Your task to perform on an android device: turn off notifications in google photos Image 0: 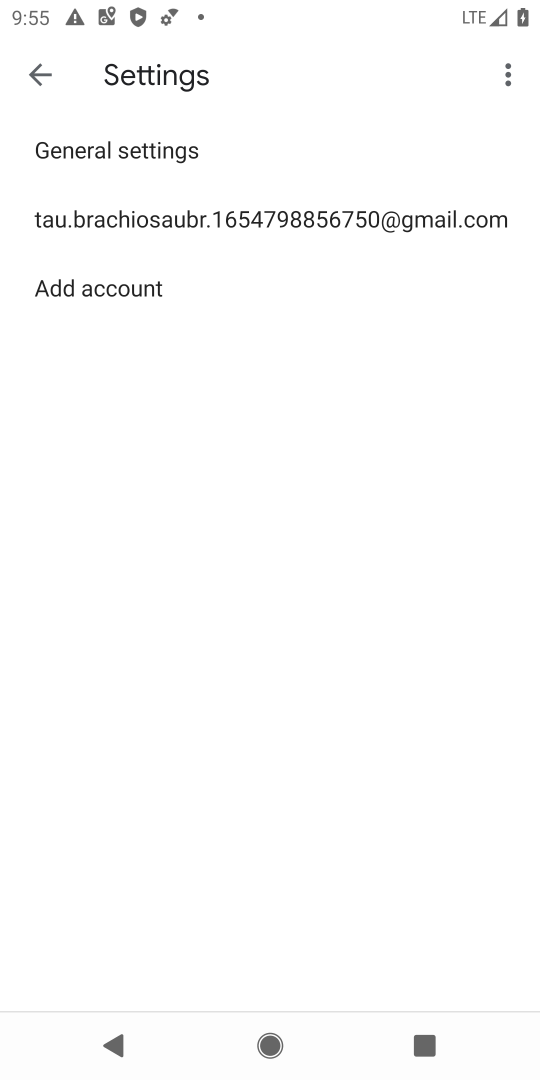
Step 0: press back button
Your task to perform on an android device: turn off notifications in google photos Image 1: 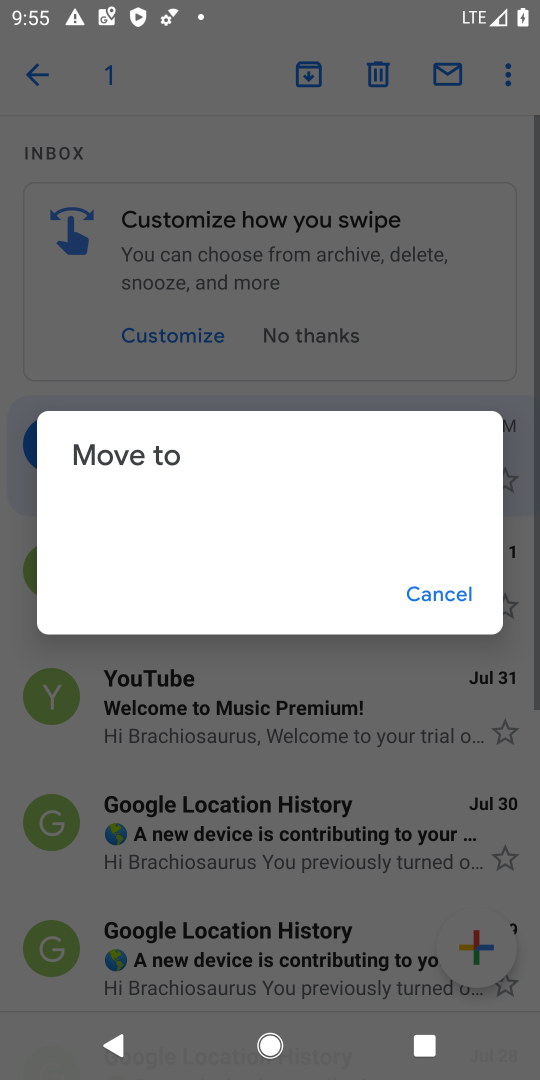
Step 1: press home button
Your task to perform on an android device: turn off notifications in google photos Image 2: 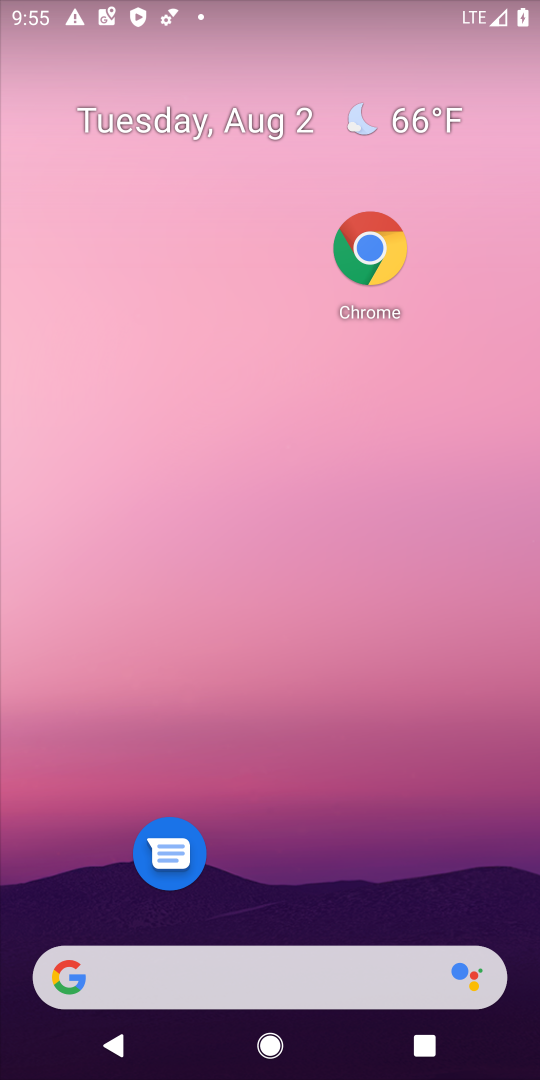
Step 2: drag from (265, 839) to (496, 34)
Your task to perform on an android device: turn off notifications in google photos Image 3: 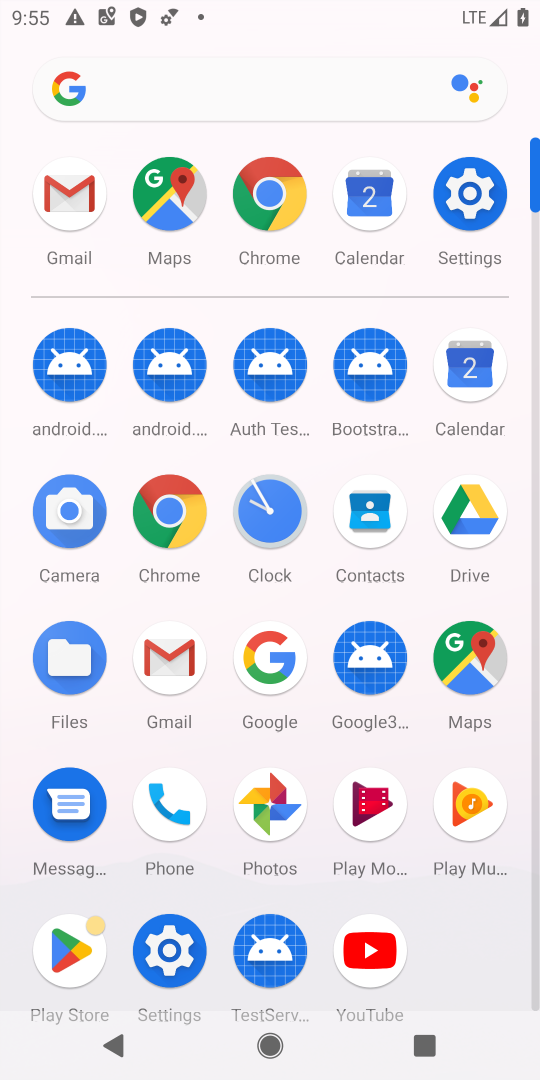
Step 3: click (251, 812)
Your task to perform on an android device: turn off notifications in google photos Image 4: 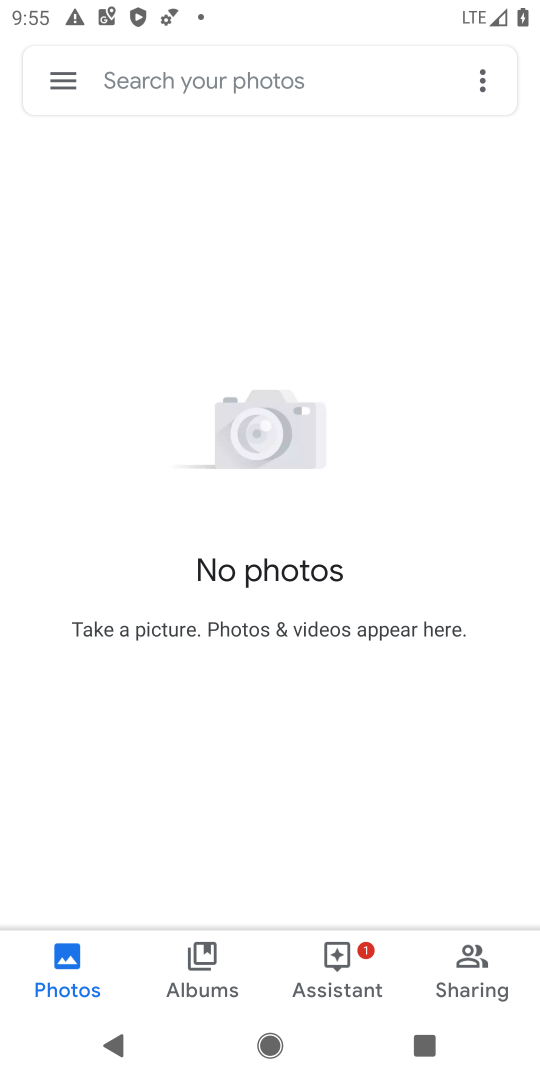
Step 4: drag from (58, 76) to (164, 423)
Your task to perform on an android device: turn off notifications in google photos Image 5: 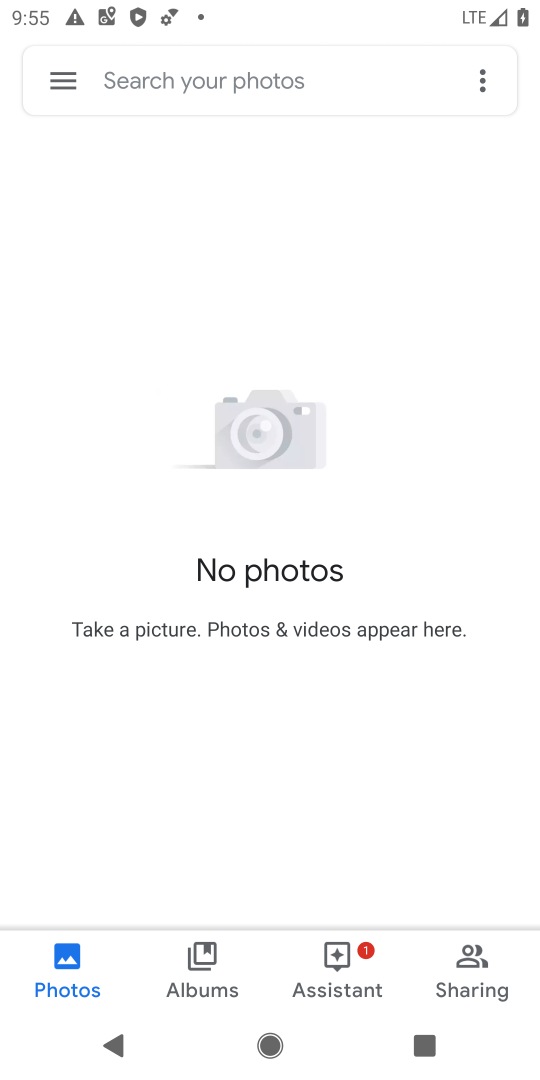
Step 5: click (77, 73)
Your task to perform on an android device: turn off notifications in google photos Image 6: 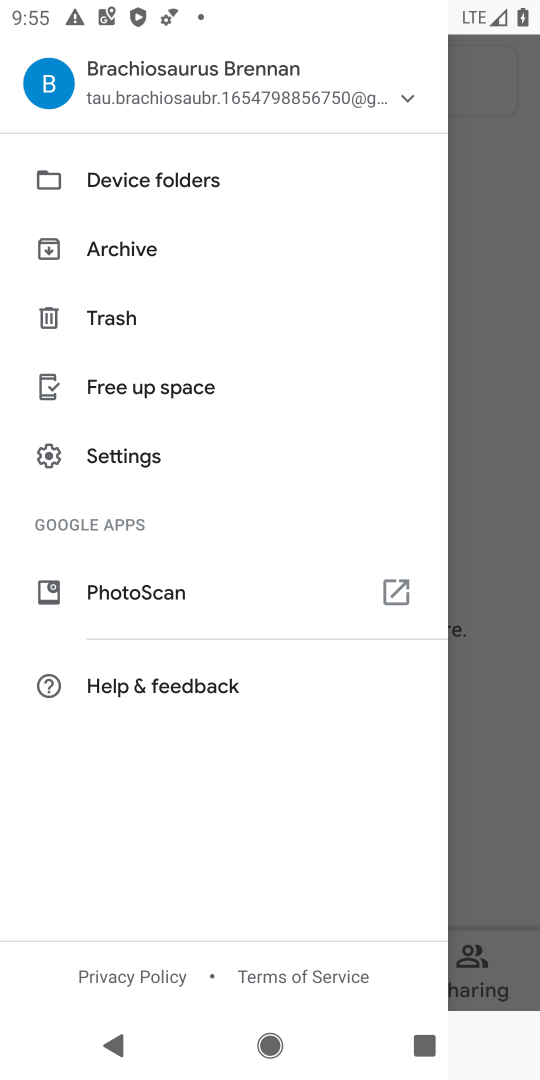
Step 6: click (113, 466)
Your task to perform on an android device: turn off notifications in google photos Image 7: 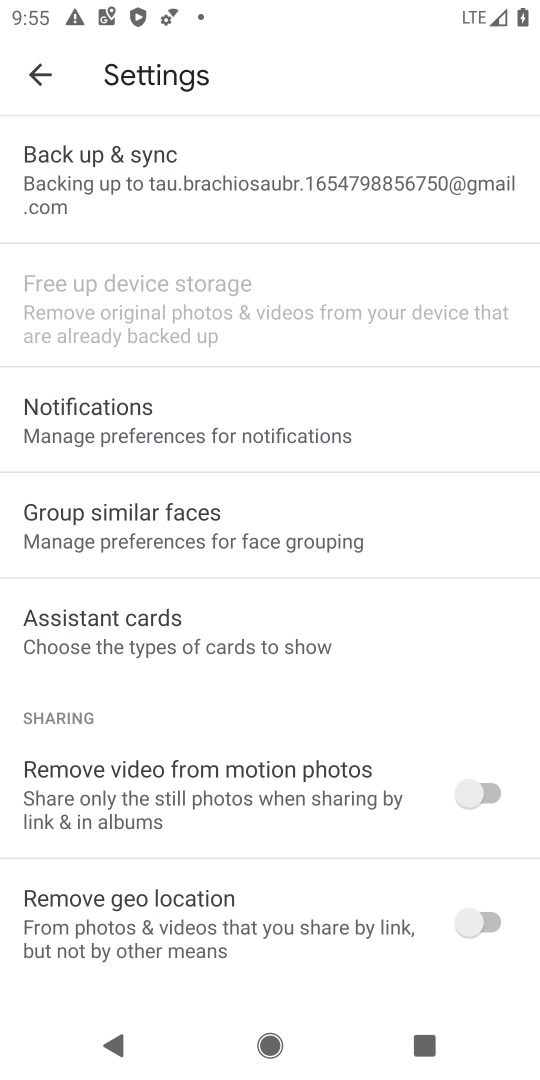
Step 7: click (131, 423)
Your task to perform on an android device: turn off notifications in google photos Image 8: 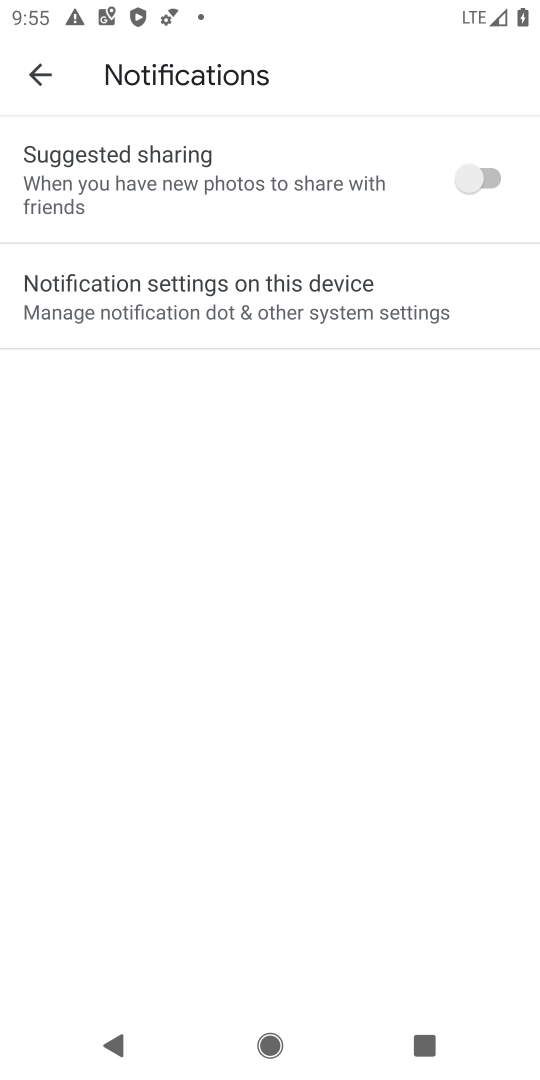
Step 8: click (187, 272)
Your task to perform on an android device: turn off notifications in google photos Image 9: 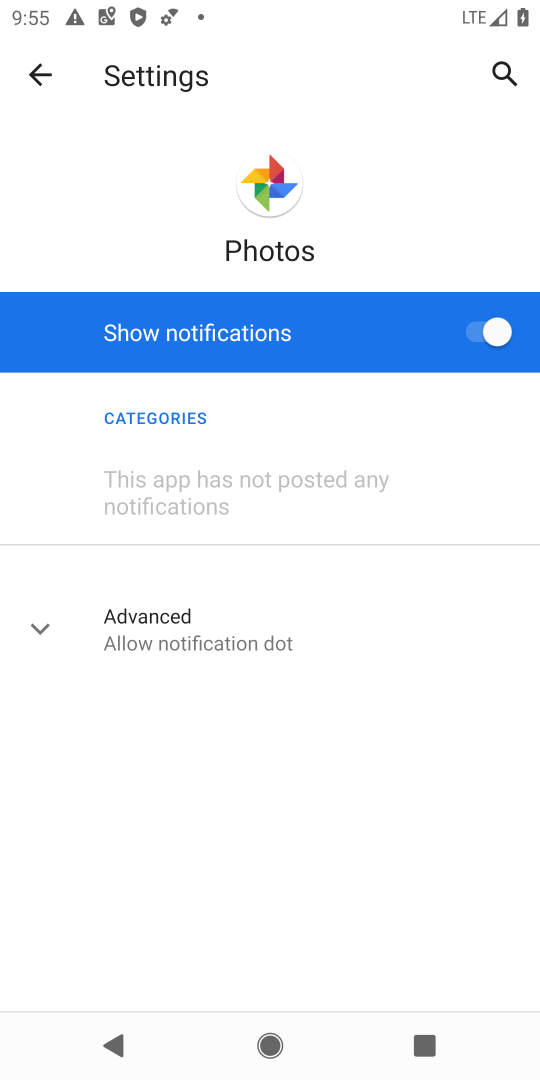
Step 9: click (465, 337)
Your task to perform on an android device: turn off notifications in google photos Image 10: 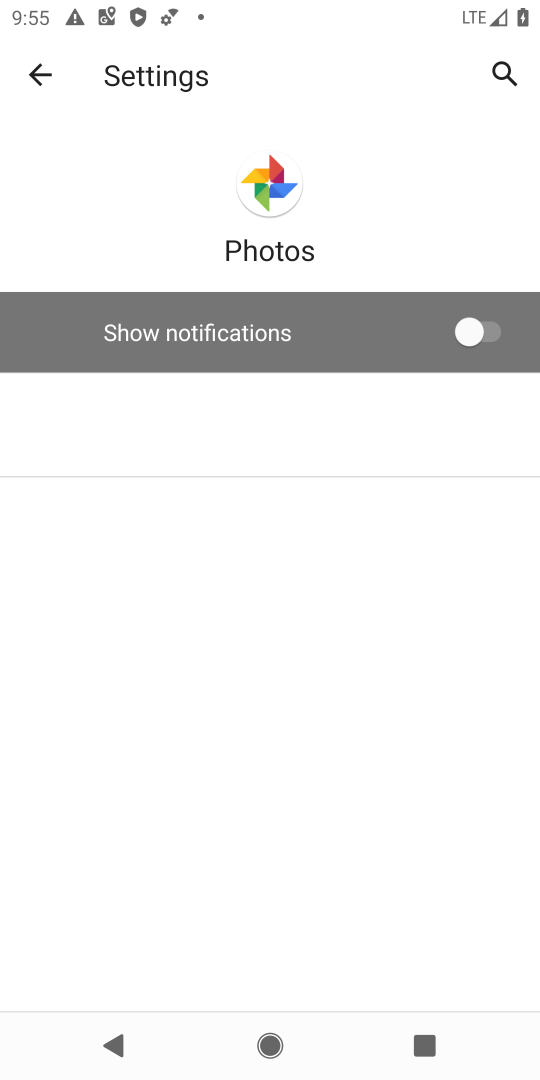
Step 10: task complete